Your task to perform on an android device: toggle sleep mode Image 0: 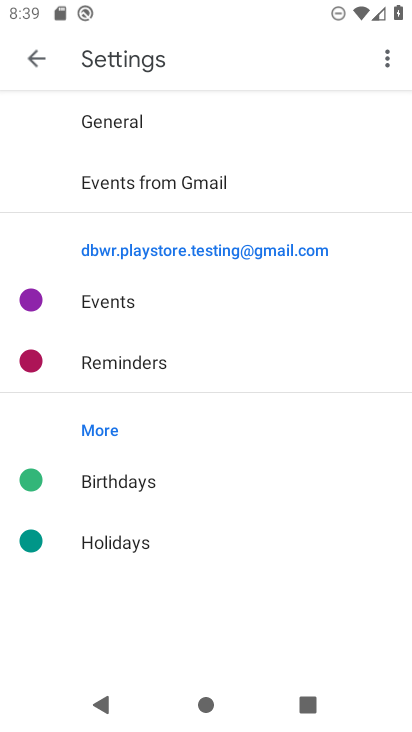
Step 0: press home button
Your task to perform on an android device: toggle sleep mode Image 1: 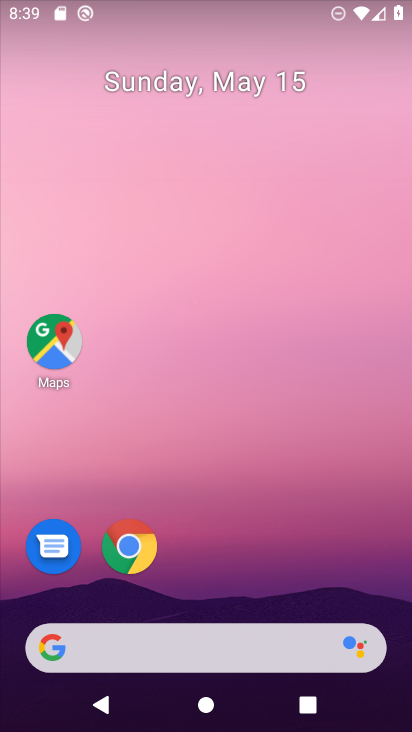
Step 1: drag from (244, 525) to (234, 33)
Your task to perform on an android device: toggle sleep mode Image 2: 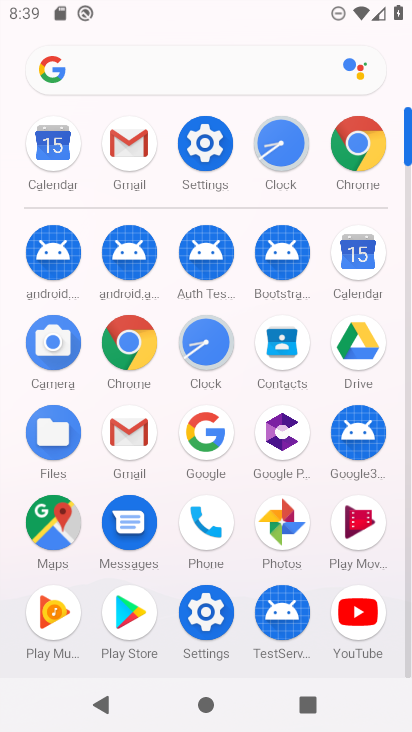
Step 2: click (202, 127)
Your task to perform on an android device: toggle sleep mode Image 3: 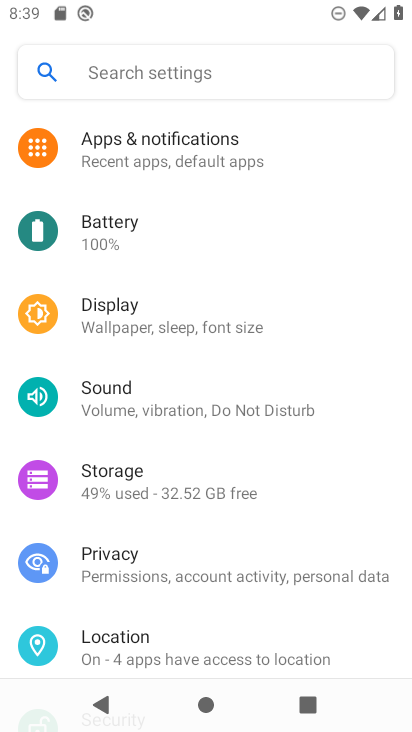
Step 3: click (178, 317)
Your task to perform on an android device: toggle sleep mode Image 4: 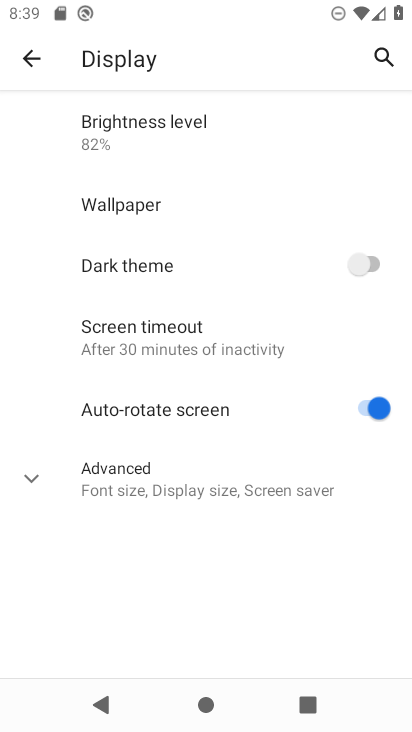
Step 4: click (29, 473)
Your task to perform on an android device: toggle sleep mode Image 5: 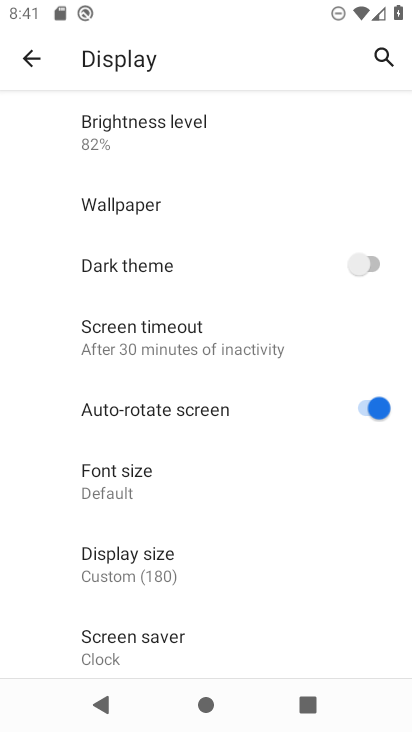
Step 5: task complete